Your task to perform on an android device: turn off airplane mode Image 0: 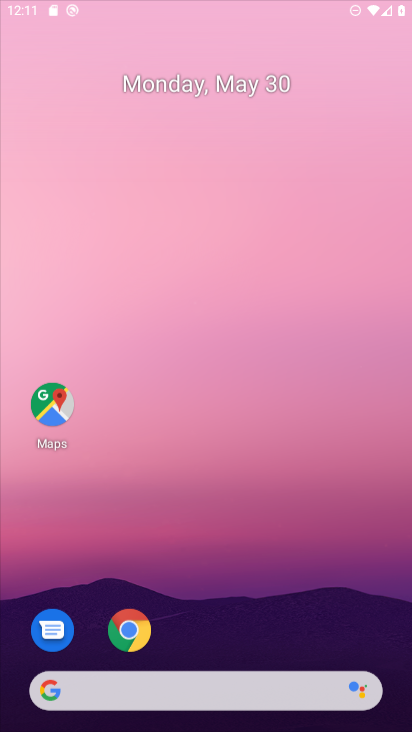
Step 0: drag from (232, 666) to (41, 103)
Your task to perform on an android device: turn off airplane mode Image 1: 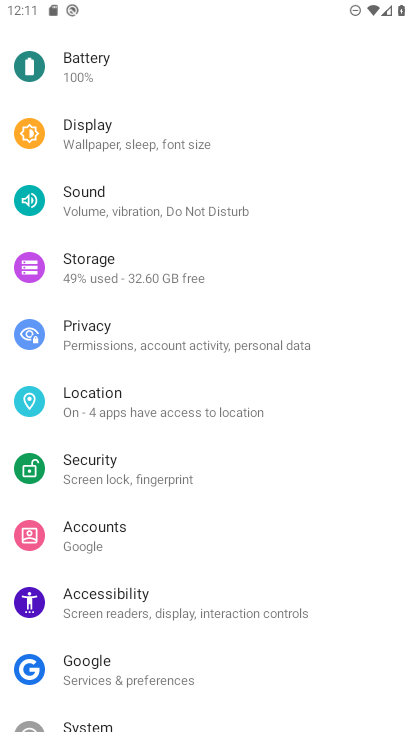
Step 1: drag from (158, 105) to (216, 576)
Your task to perform on an android device: turn off airplane mode Image 2: 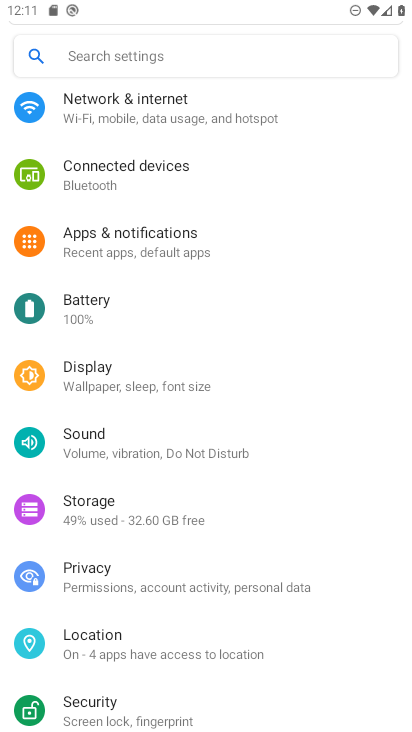
Step 2: drag from (166, 295) to (180, 627)
Your task to perform on an android device: turn off airplane mode Image 3: 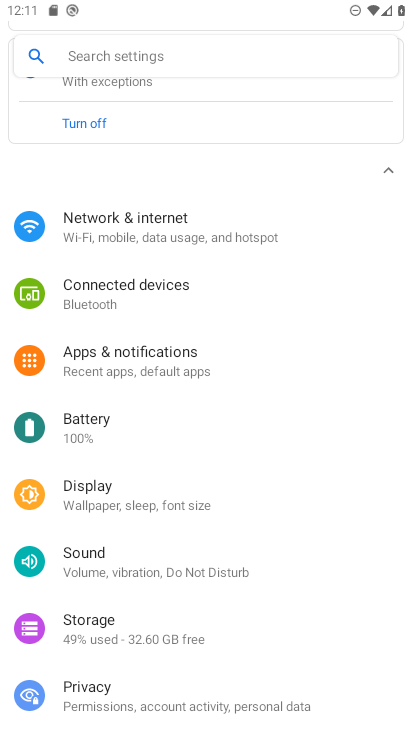
Step 3: drag from (183, 337) to (261, 728)
Your task to perform on an android device: turn off airplane mode Image 4: 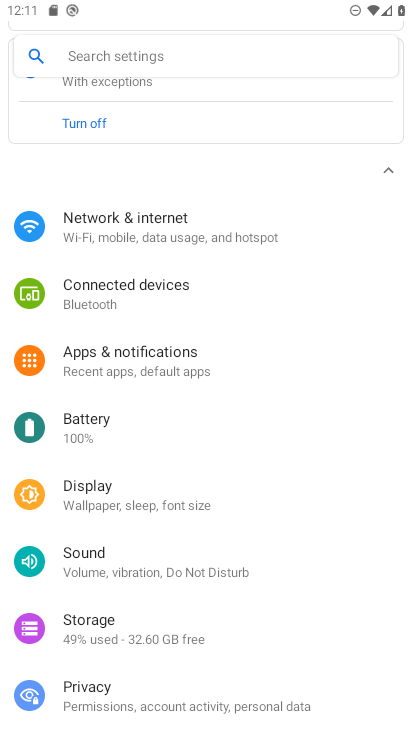
Step 4: click (136, 226)
Your task to perform on an android device: turn off airplane mode Image 5: 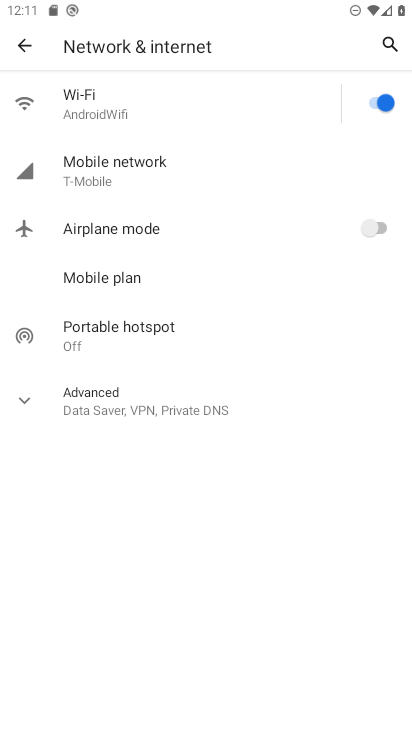
Step 5: task complete